Your task to perform on an android device: When is my next meeting? Image 0: 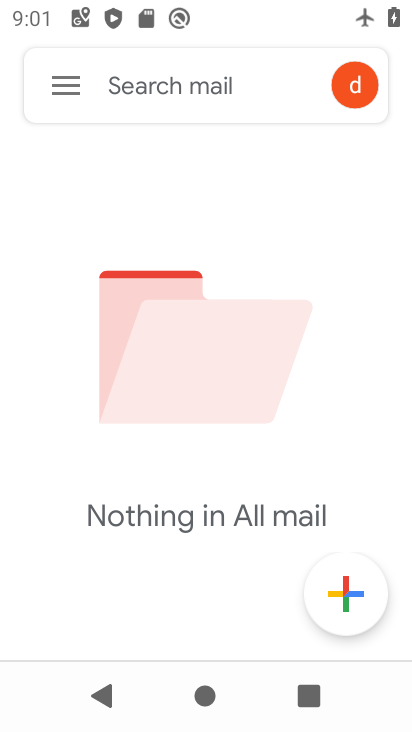
Step 0: press home button
Your task to perform on an android device: When is my next meeting? Image 1: 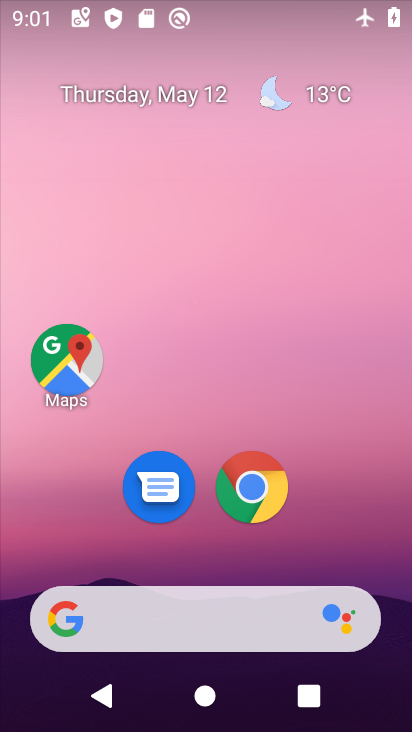
Step 1: drag from (346, 564) to (326, 10)
Your task to perform on an android device: When is my next meeting? Image 2: 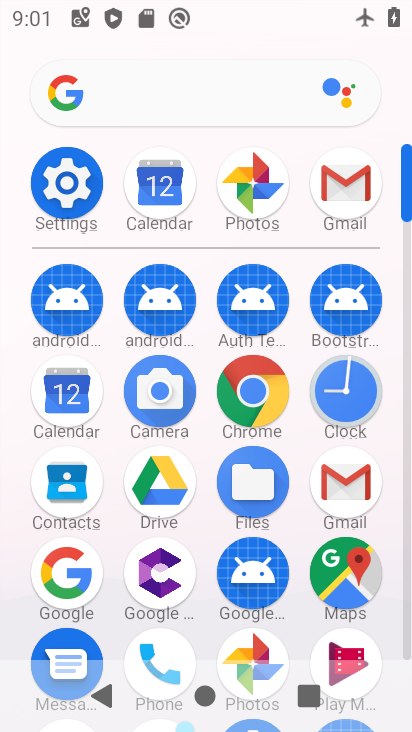
Step 2: click (163, 191)
Your task to perform on an android device: When is my next meeting? Image 3: 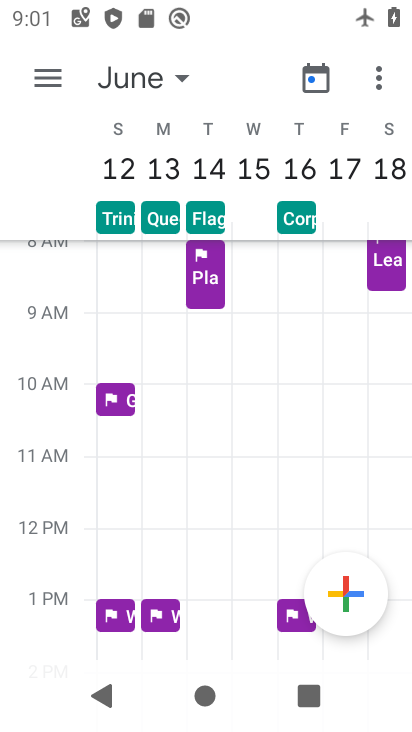
Step 3: click (179, 77)
Your task to perform on an android device: When is my next meeting? Image 4: 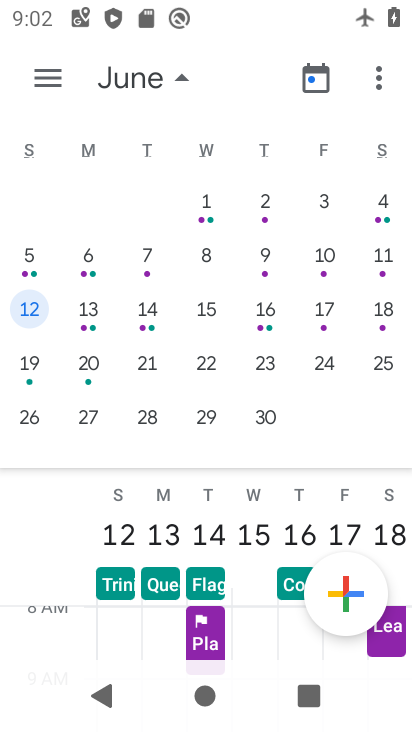
Step 4: click (314, 81)
Your task to perform on an android device: When is my next meeting? Image 5: 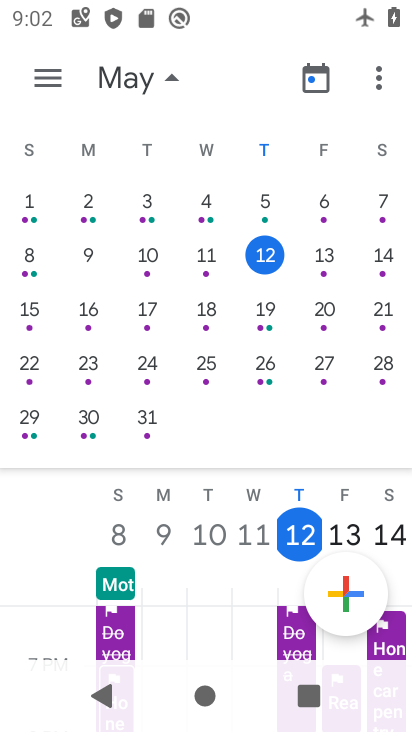
Step 5: click (57, 88)
Your task to perform on an android device: When is my next meeting? Image 6: 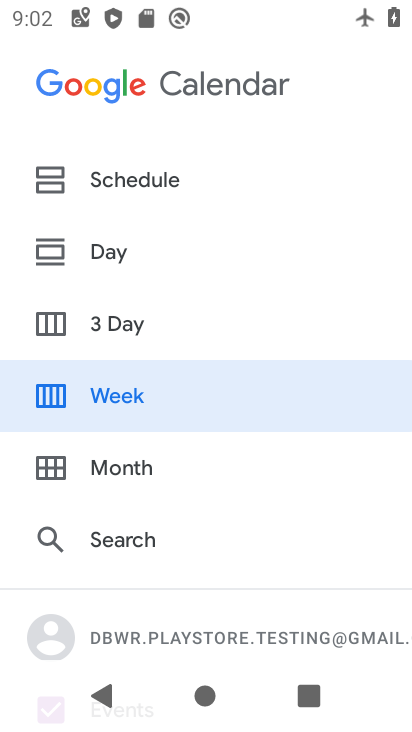
Step 6: click (106, 177)
Your task to perform on an android device: When is my next meeting? Image 7: 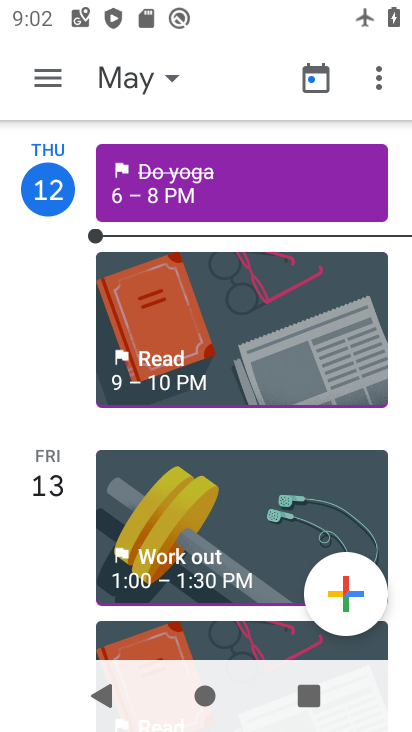
Step 7: drag from (185, 478) to (212, 120)
Your task to perform on an android device: When is my next meeting? Image 8: 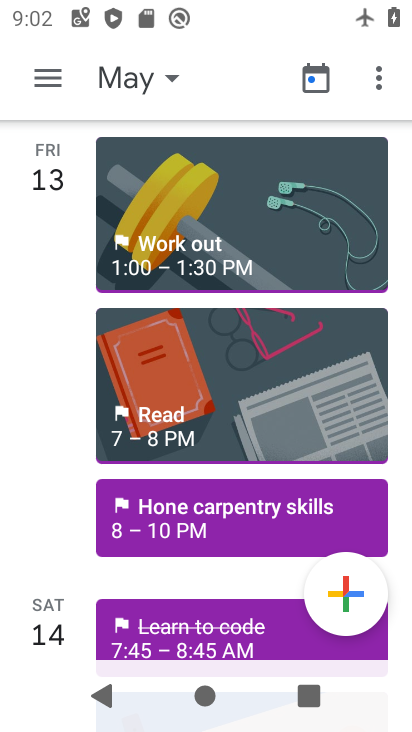
Step 8: drag from (181, 431) to (213, 152)
Your task to perform on an android device: When is my next meeting? Image 9: 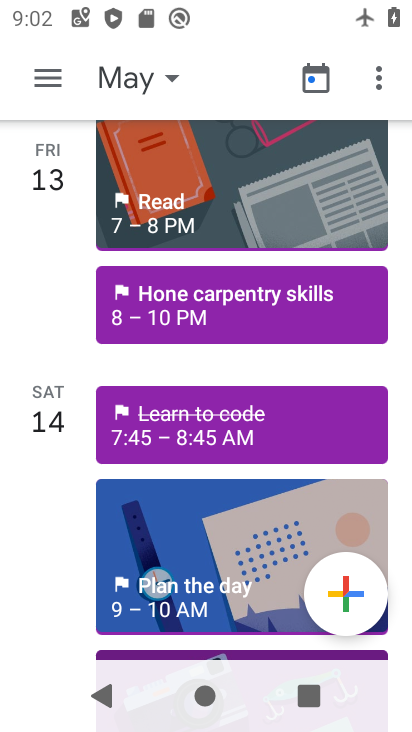
Step 9: click (213, 292)
Your task to perform on an android device: When is my next meeting? Image 10: 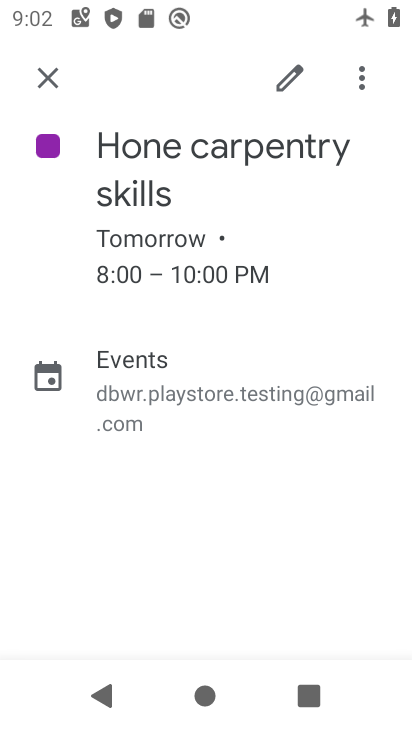
Step 10: task complete